Your task to perform on an android device: Open privacy settings Image 0: 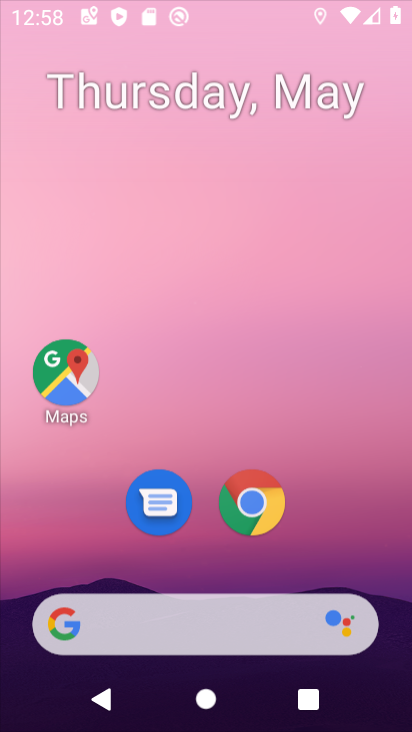
Step 0: drag from (353, 405) to (355, 77)
Your task to perform on an android device: Open privacy settings Image 1: 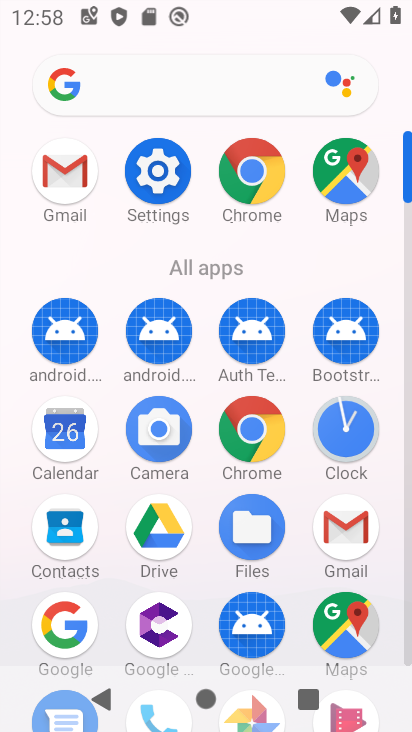
Step 1: click (150, 164)
Your task to perform on an android device: Open privacy settings Image 2: 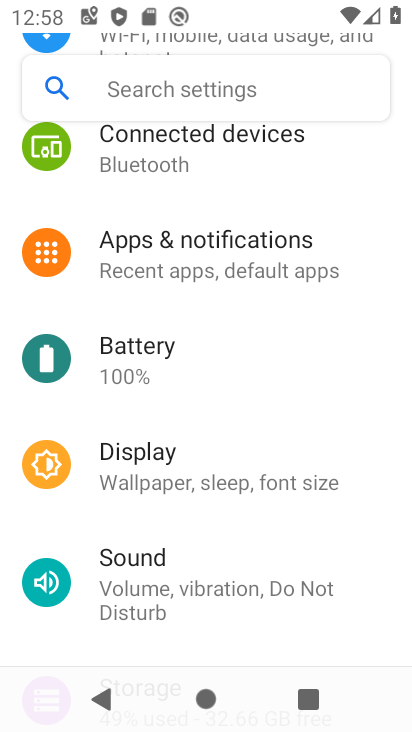
Step 2: drag from (280, 286) to (269, 683)
Your task to perform on an android device: Open privacy settings Image 3: 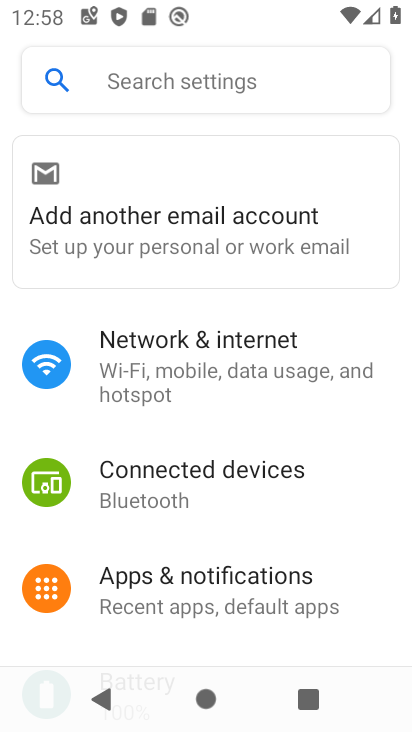
Step 3: drag from (254, 556) to (290, 150)
Your task to perform on an android device: Open privacy settings Image 4: 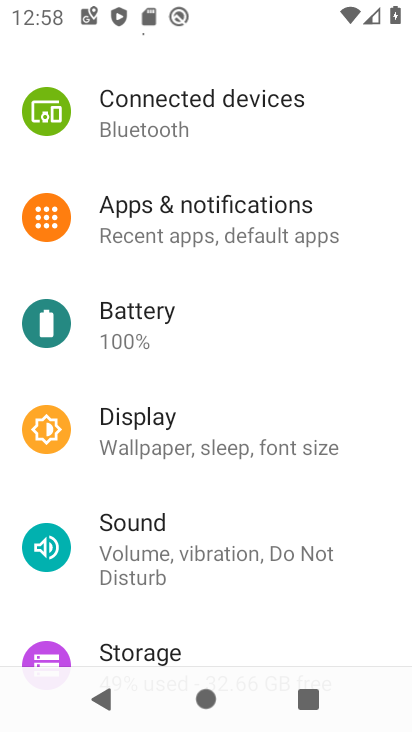
Step 4: drag from (316, 287) to (353, 136)
Your task to perform on an android device: Open privacy settings Image 5: 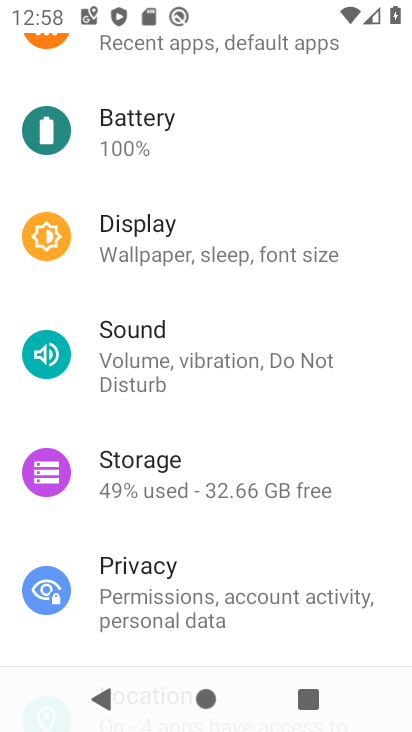
Step 5: click (180, 603)
Your task to perform on an android device: Open privacy settings Image 6: 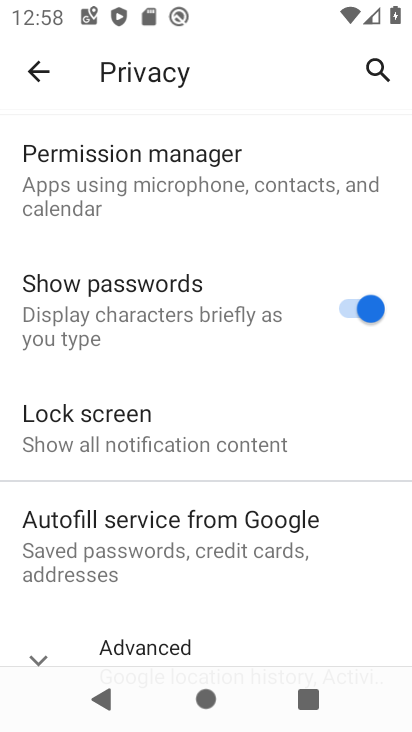
Step 6: task complete